Your task to perform on an android device: find photos in the google photos app Image 0: 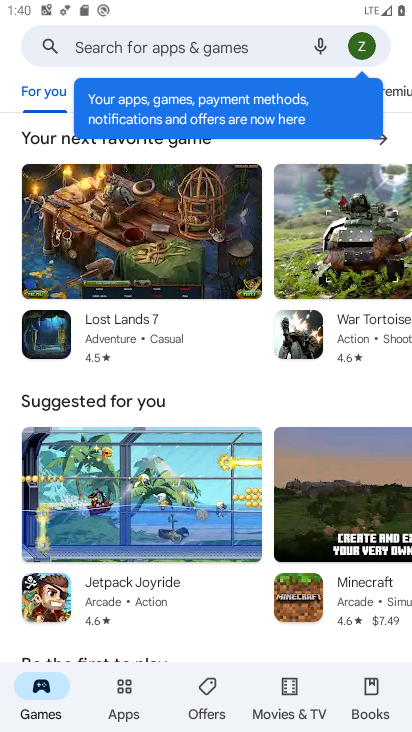
Step 0: press home button
Your task to perform on an android device: find photos in the google photos app Image 1: 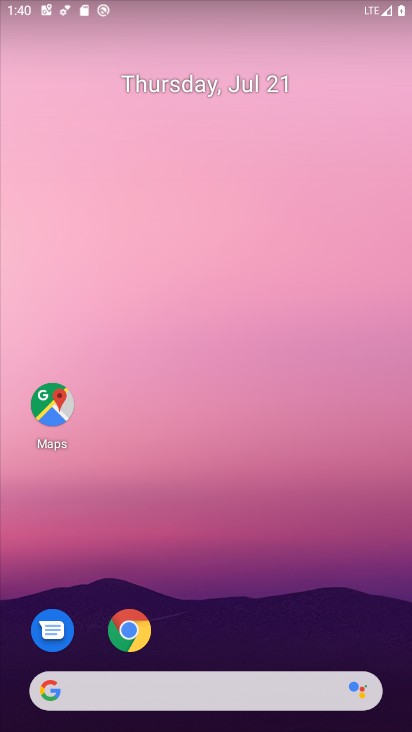
Step 1: drag from (397, 628) to (341, 4)
Your task to perform on an android device: find photos in the google photos app Image 2: 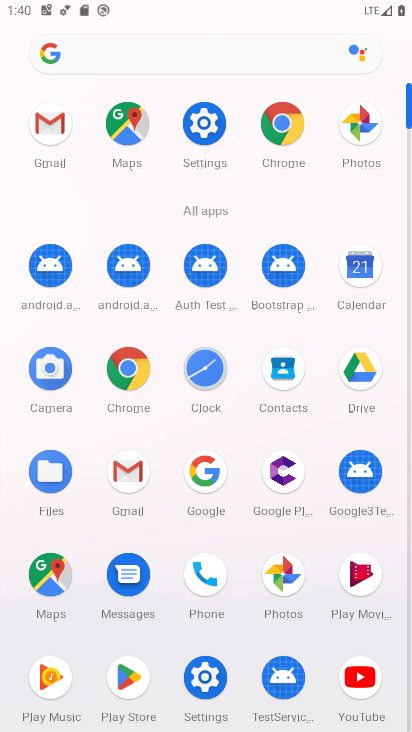
Step 2: click (259, 603)
Your task to perform on an android device: find photos in the google photos app Image 3: 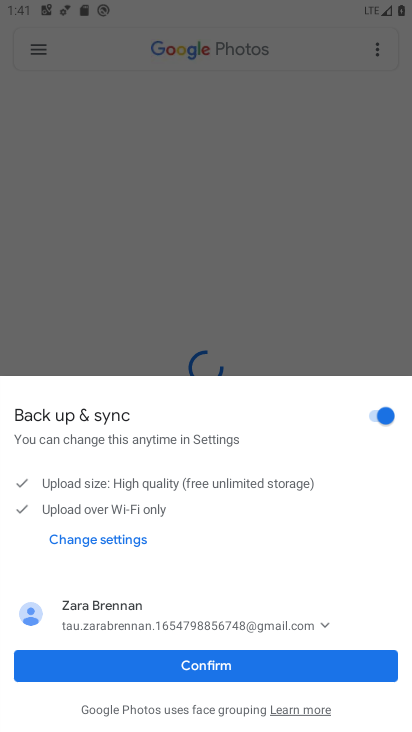
Step 3: click (158, 664)
Your task to perform on an android device: find photos in the google photos app Image 4: 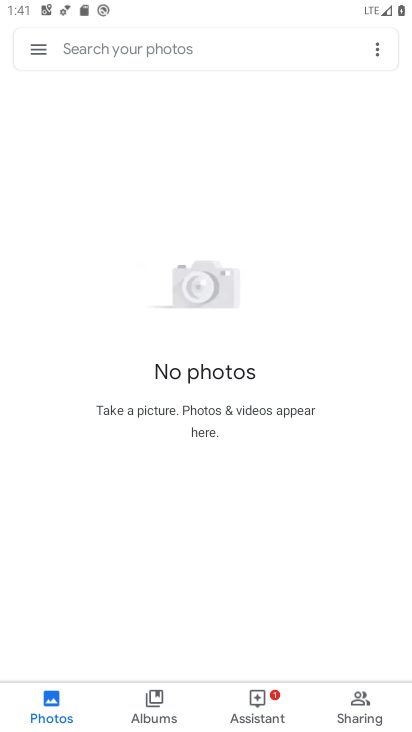
Step 4: task complete